Your task to perform on an android device: turn off sleep mode Image 0: 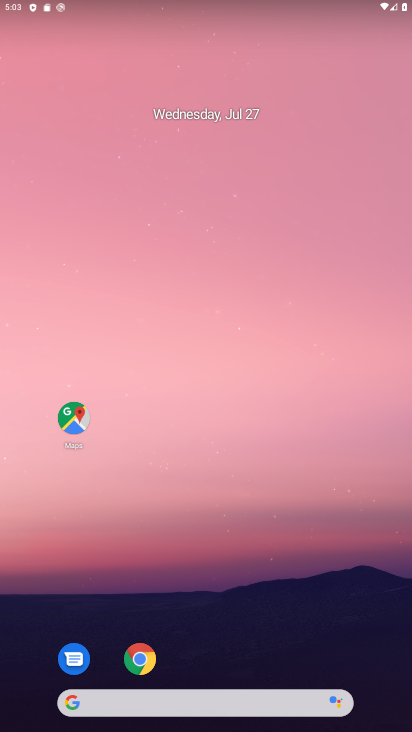
Step 0: press home button
Your task to perform on an android device: turn off sleep mode Image 1: 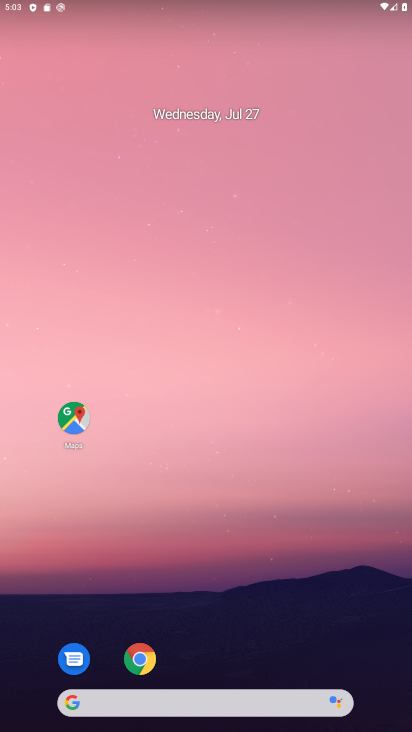
Step 1: drag from (229, 617) to (242, 173)
Your task to perform on an android device: turn off sleep mode Image 2: 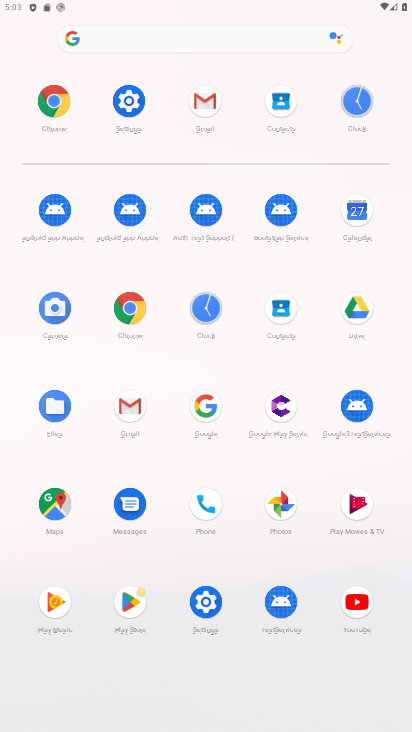
Step 2: click (198, 595)
Your task to perform on an android device: turn off sleep mode Image 3: 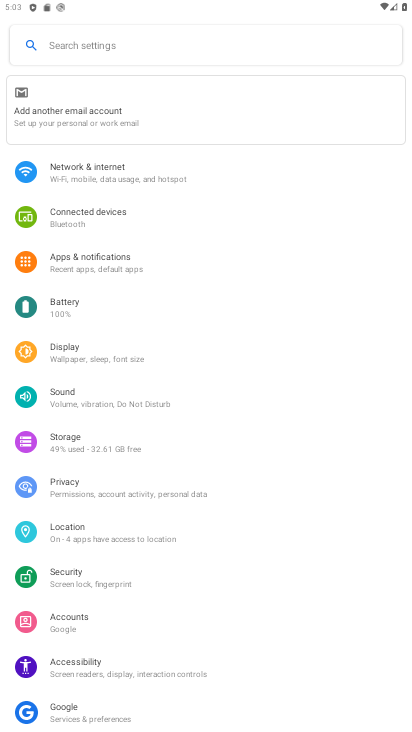
Step 3: click (95, 367)
Your task to perform on an android device: turn off sleep mode Image 4: 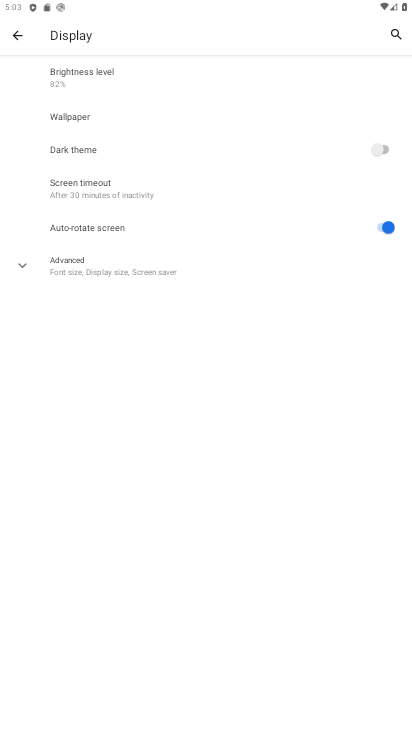
Step 4: task complete